Your task to perform on an android device: turn on improve location accuracy Image 0: 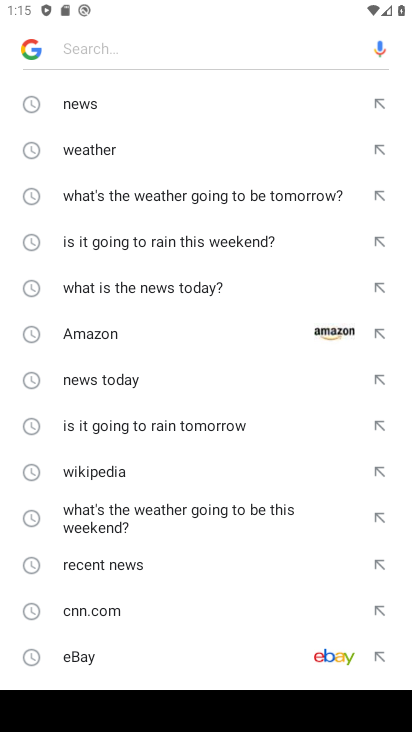
Step 0: press home button
Your task to perform on an android device: turn on improve location accuracy Image 1: 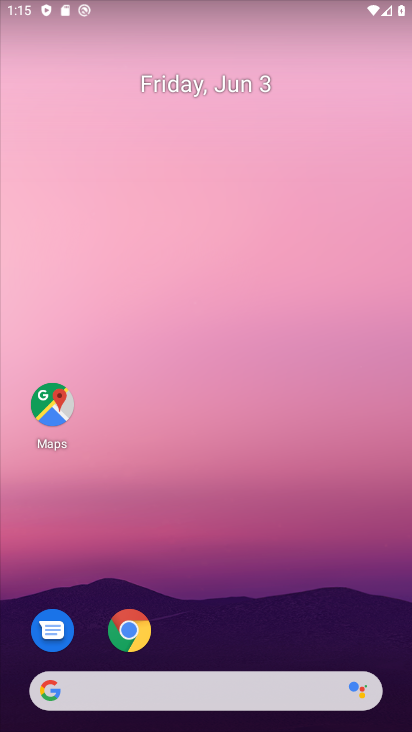
Step 1: drag from (219, 698) to (219, 96)
Your task to perform on an android device: turn on improve location accuracy Image 2: 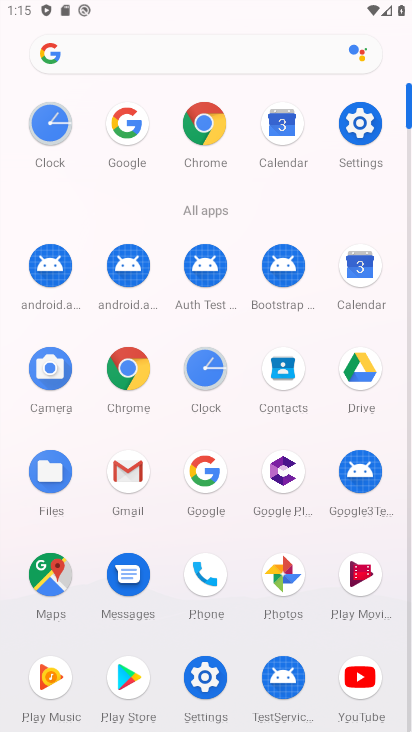
Step 2: click (360, 126)
Your task to perform on an android device: turn on improve location accuracy Image 3: 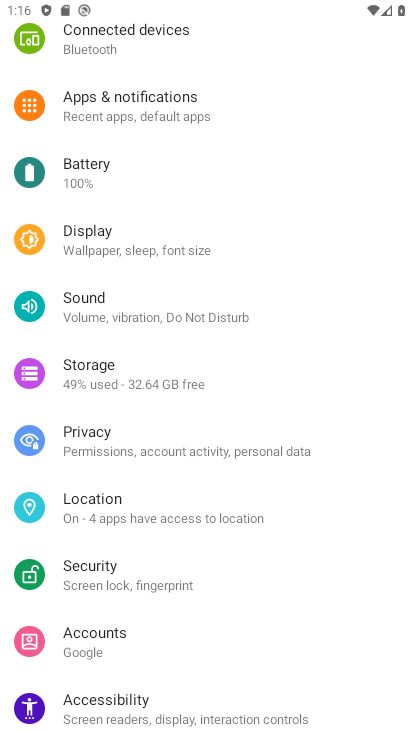
Step 3: click (72, 508)
Your task to perform on an android device: turn on improve location accuracy Image 4: 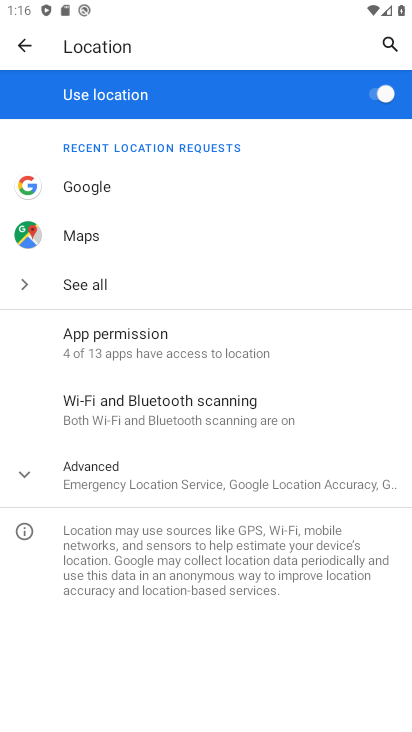
Step 4: click (84, 480)
Your task to perform on an android device: turn on improve location accuracy Image 5: 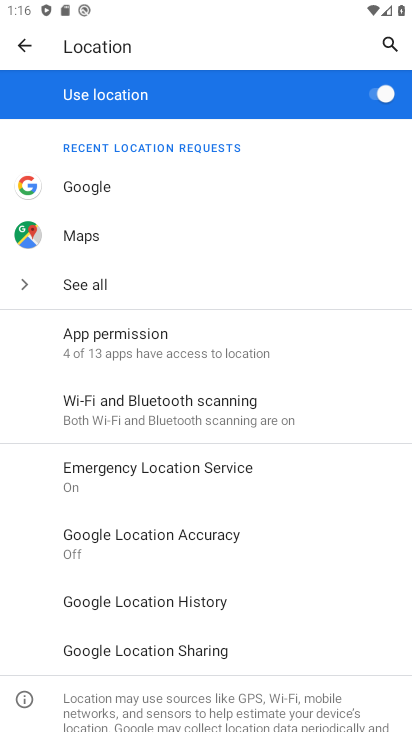
Step 5: click (125, 534)
Your task to perform on an android device: turn on improve location accuracy Image 6: 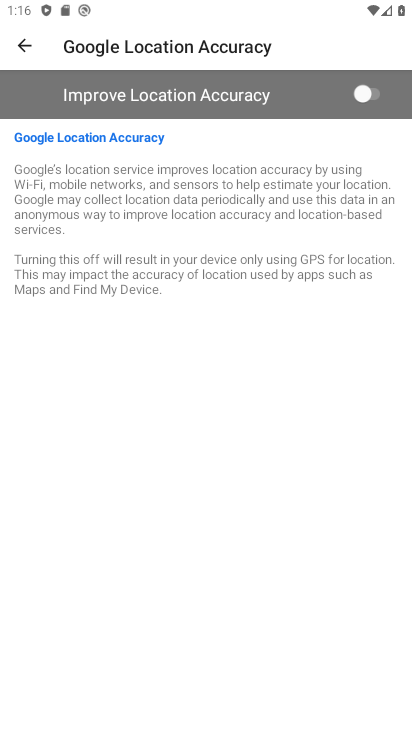
Step 6: click (375, 94)
Your task to perform on an android device: turn on improve location accuracy Image 7: 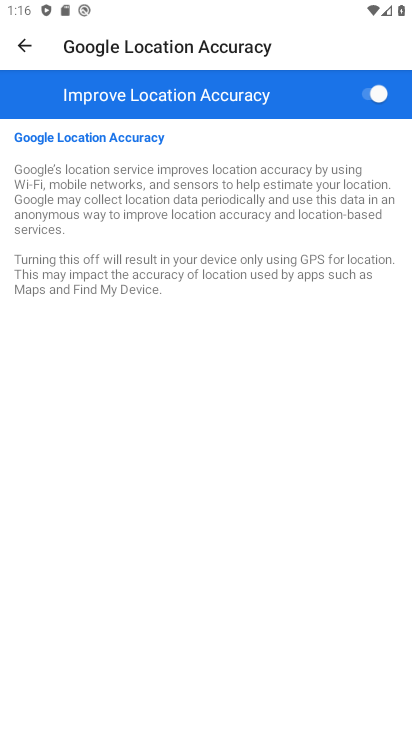
Step 7: task complete